Your task to perform on an android device: toggle show notifications on the lock screen Image 0: 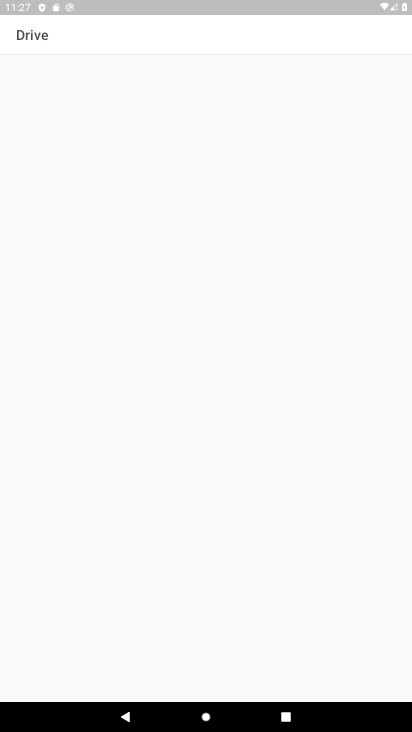
Step 0: press home button
Your task to perform on an android device: toggle show notifications on the lock screen Image 1: 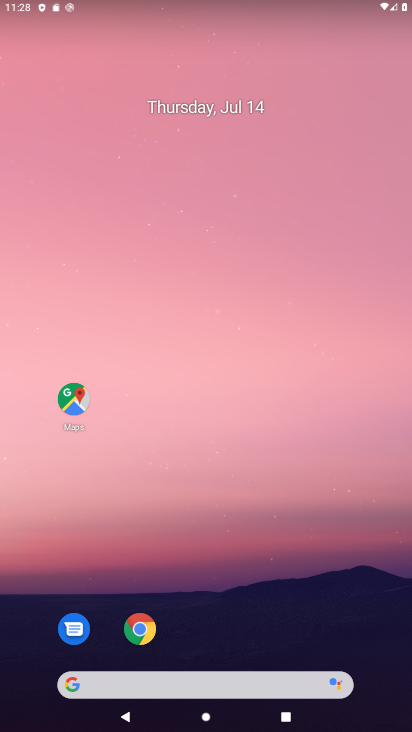
Step 1: drag from (270, 582) to (254, 66)
Your task to perform on an android device: toggle show notifications on the lock screen Image 2: 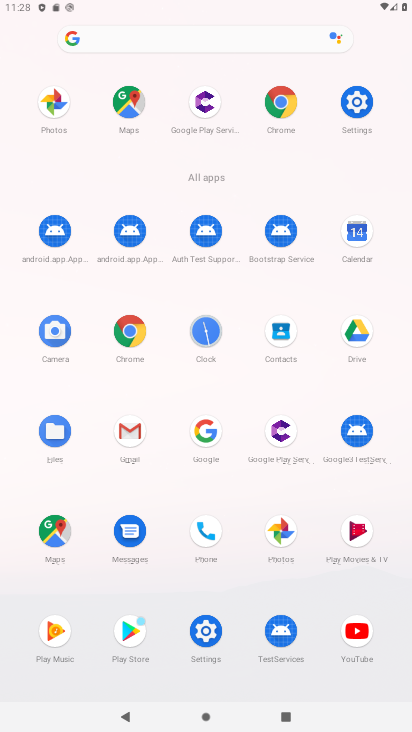
Step 2: click (354, 108)
Your task to perform on an android device: toggle show notifications on the lock screen Image 3: 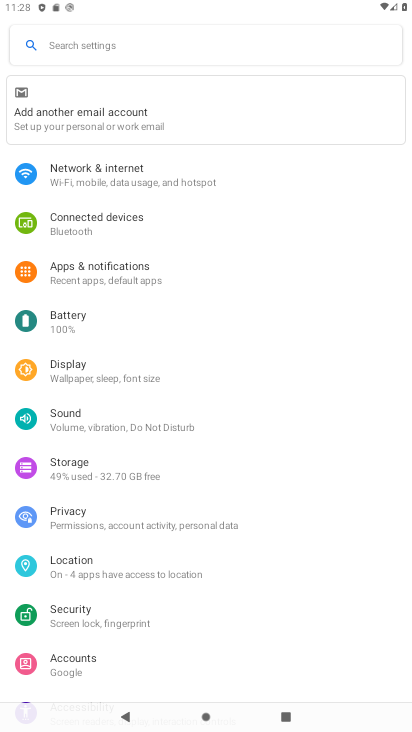
Step 3: click (102, 275)
Your task to perform on an android device: toggle show notifications on the lock screen Image 4: 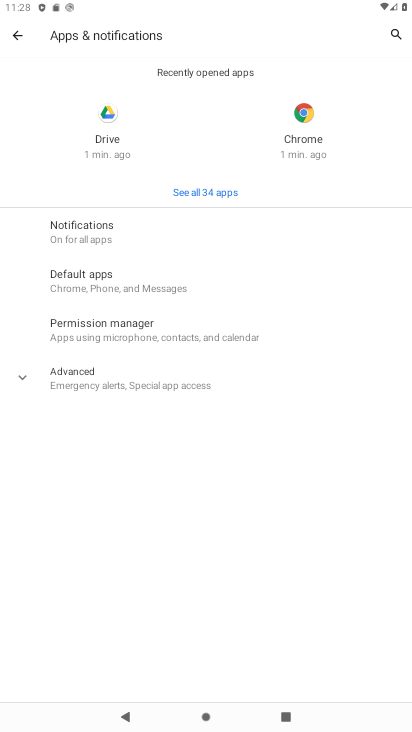
Step 4: click (96, 239)
Your task to perform on an android device: toggle show notifications on the lock screen Image 5: 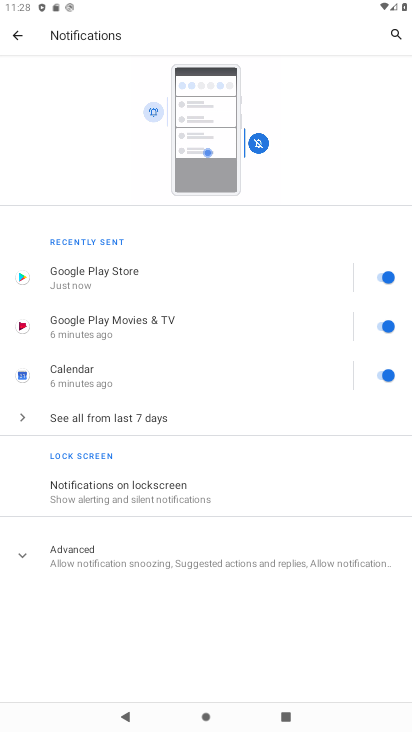
Step 5: click (140, 483)
Your task to perform on an android device: toggle show notifications on the lock screen Image 6: 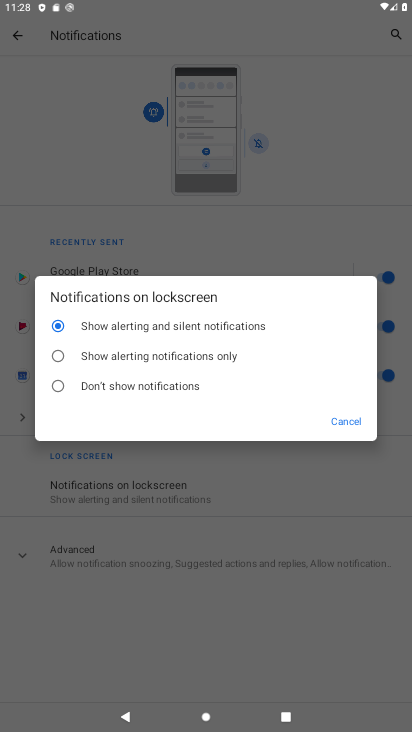
Step 6: click (201, 359)
Your task to perform on an android device: toggle show notifications on the lock screen Image 7: 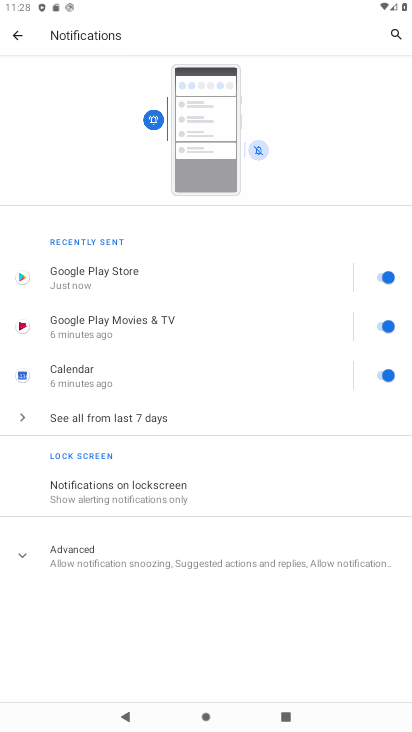
Step 7: task complete